Your task to perform on an android device: uninstall "Facebook Messenger" Image 0: 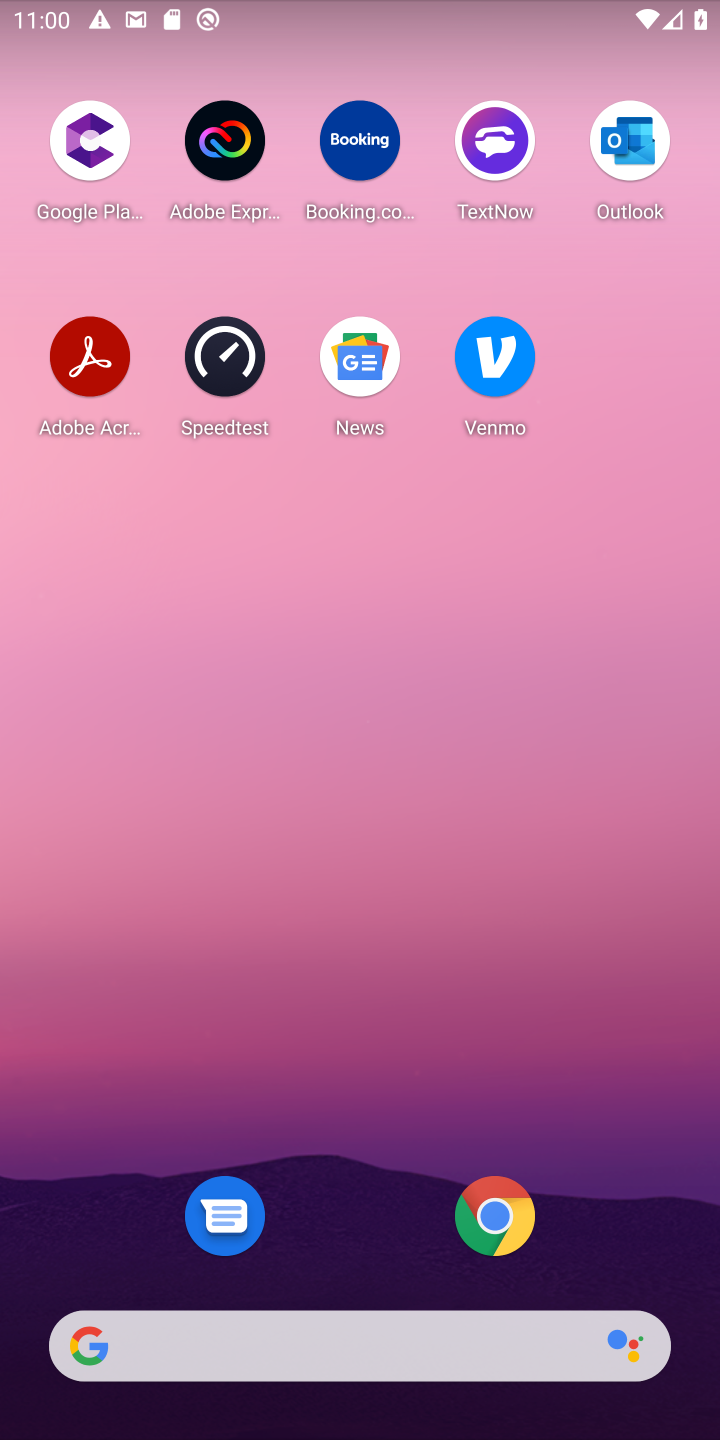
Step 0: press home button
Your task to perform on an android device: uninstall "Facebook Messenger" Image 1: 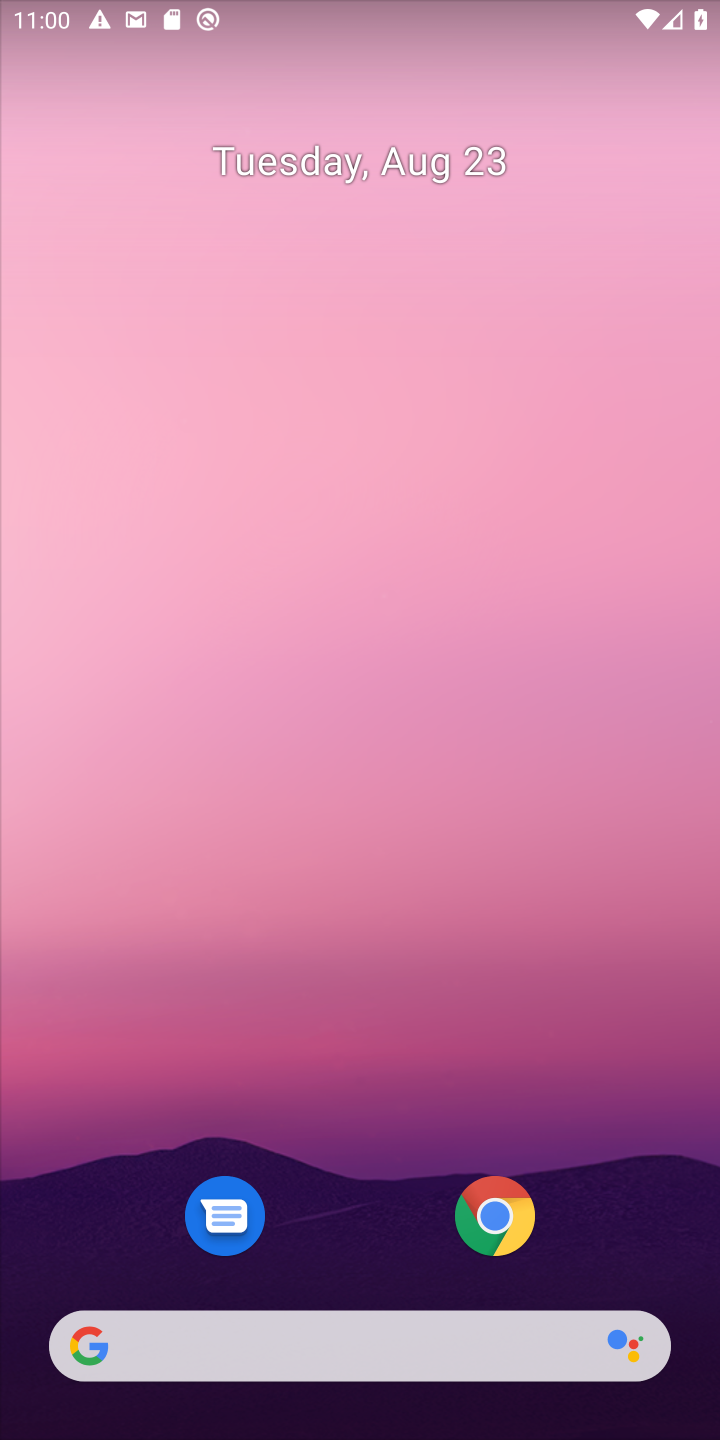
Step 1: drag from (186, 1330) to (346, 39)
Your task to perform on an android device: uninstall "Facebook Messenger" Image 2: 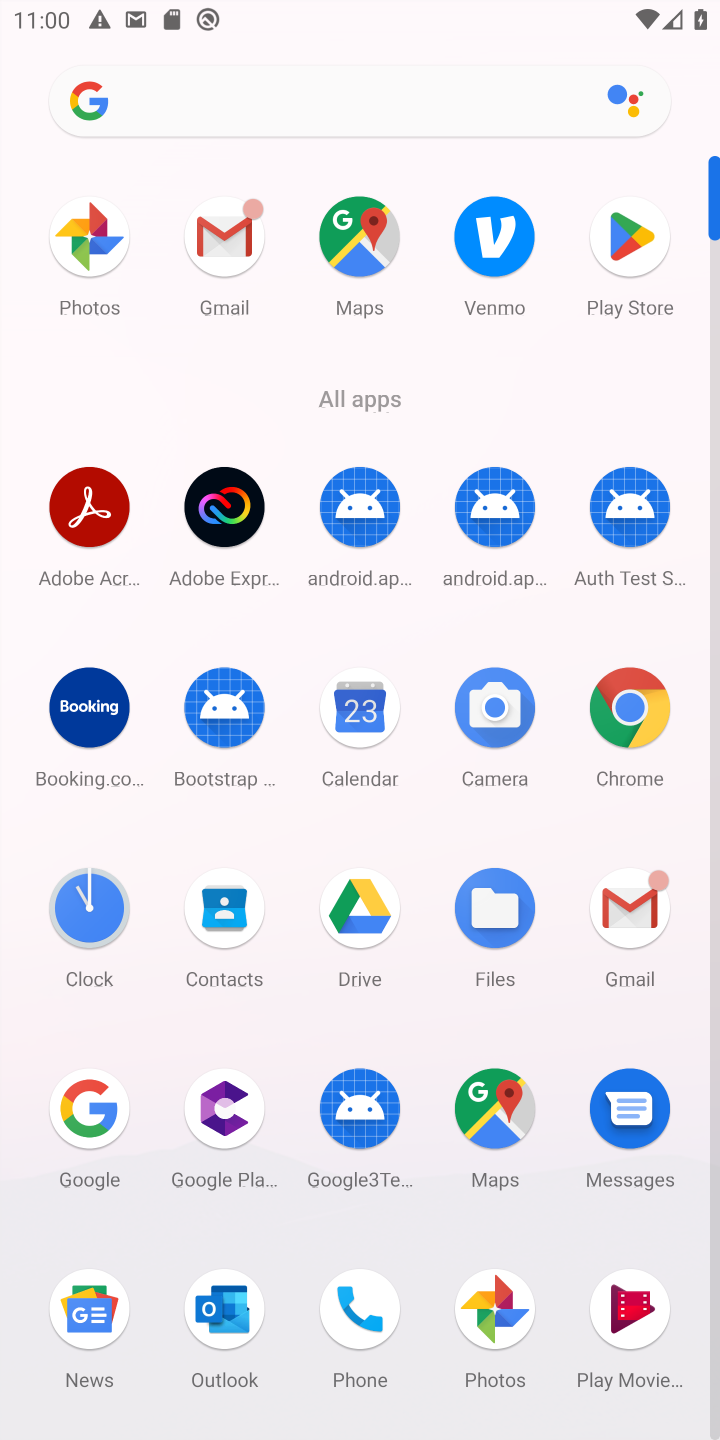
Step 2: click (627, 256)
Your task to perform on an android device: uninstall "Facebook Messenger" Image 3: 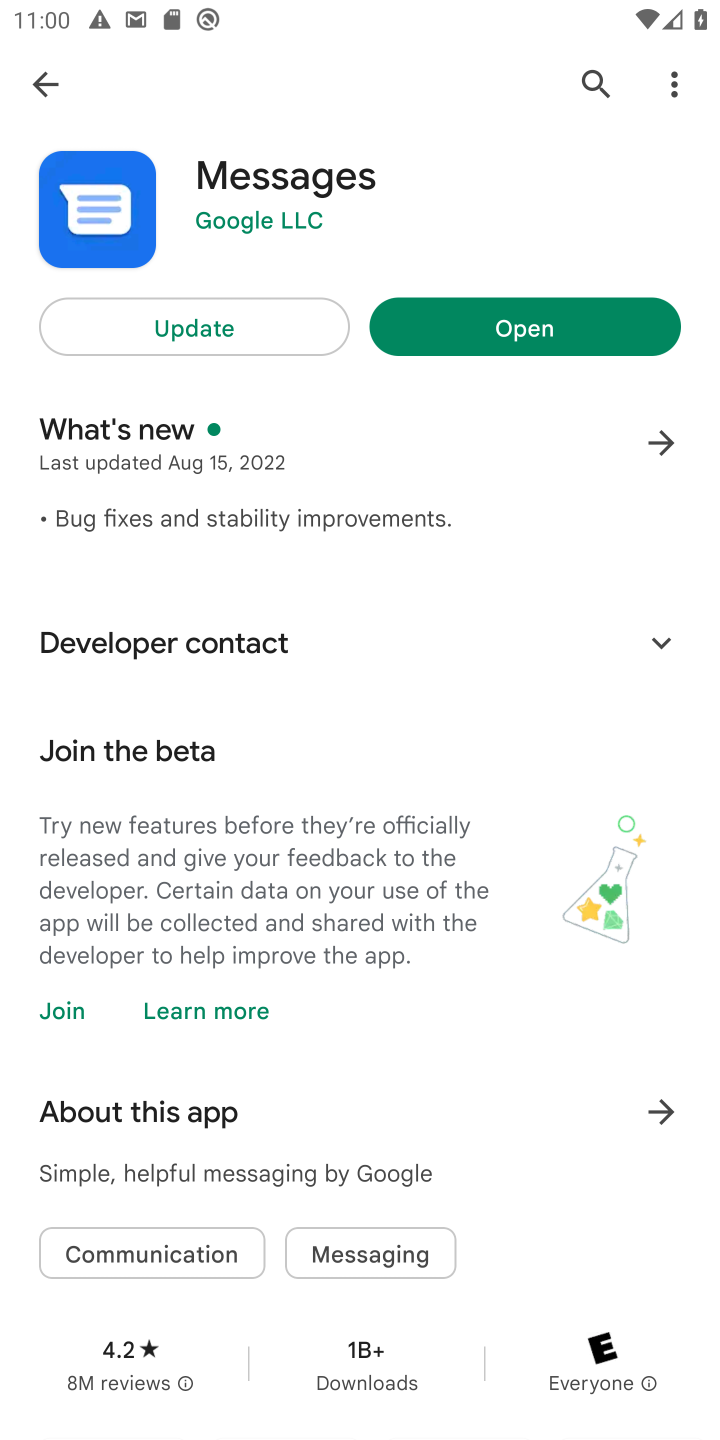
Step 3: press back button
Your task to perform on an android device: uninstall "Facebook Messenger" Image 4: 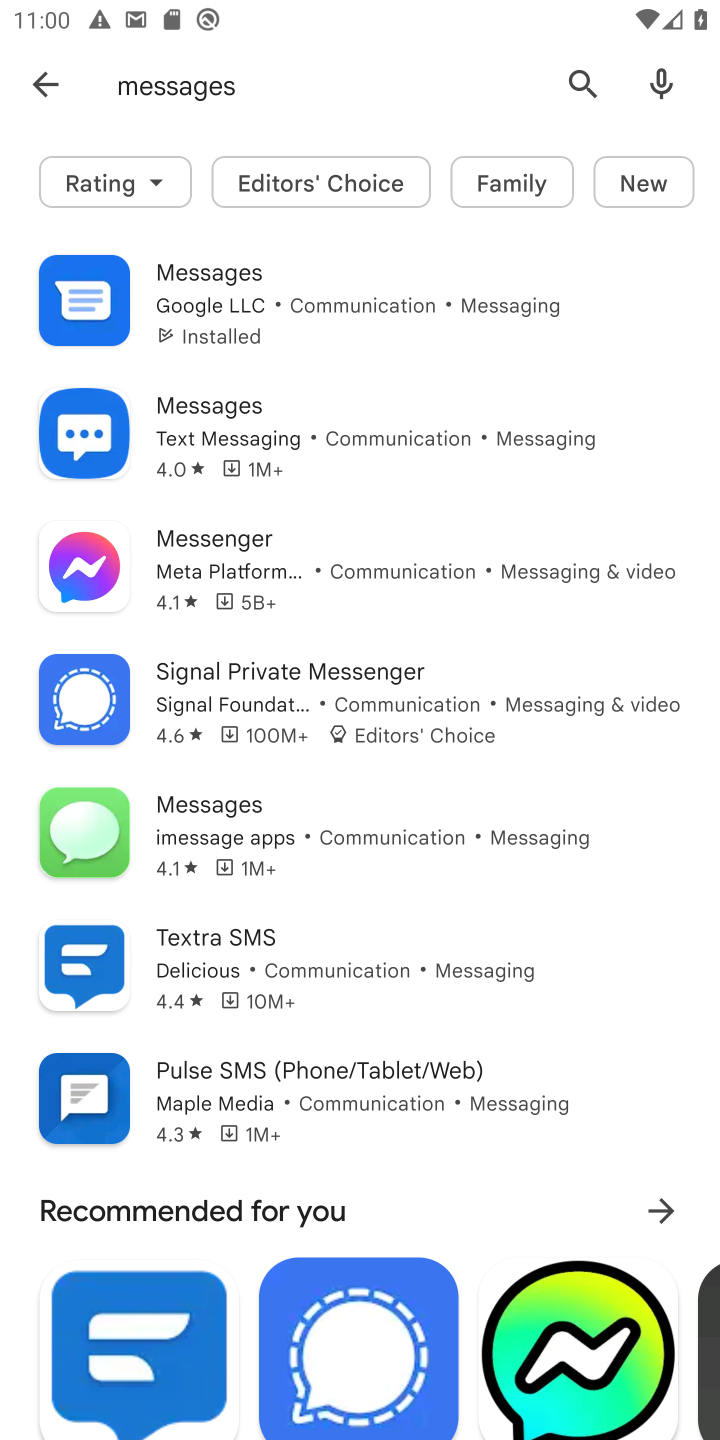
Step 4: press back button
Your task to perform on an android device: uninstall "Facebook Messenger" Image 5: 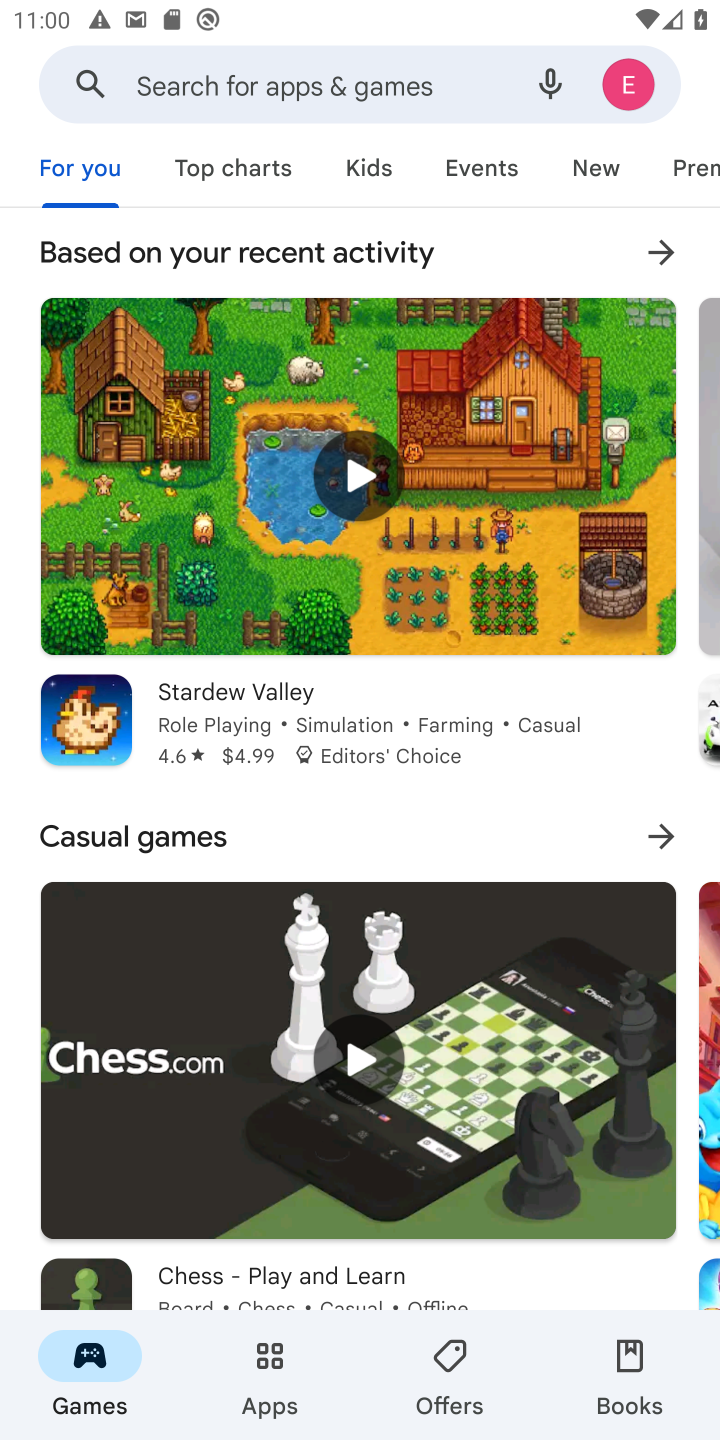
Step 5: click (246, 75)
Your task to perform on an android device: uninstall "Facebook Messenger" Image 6: 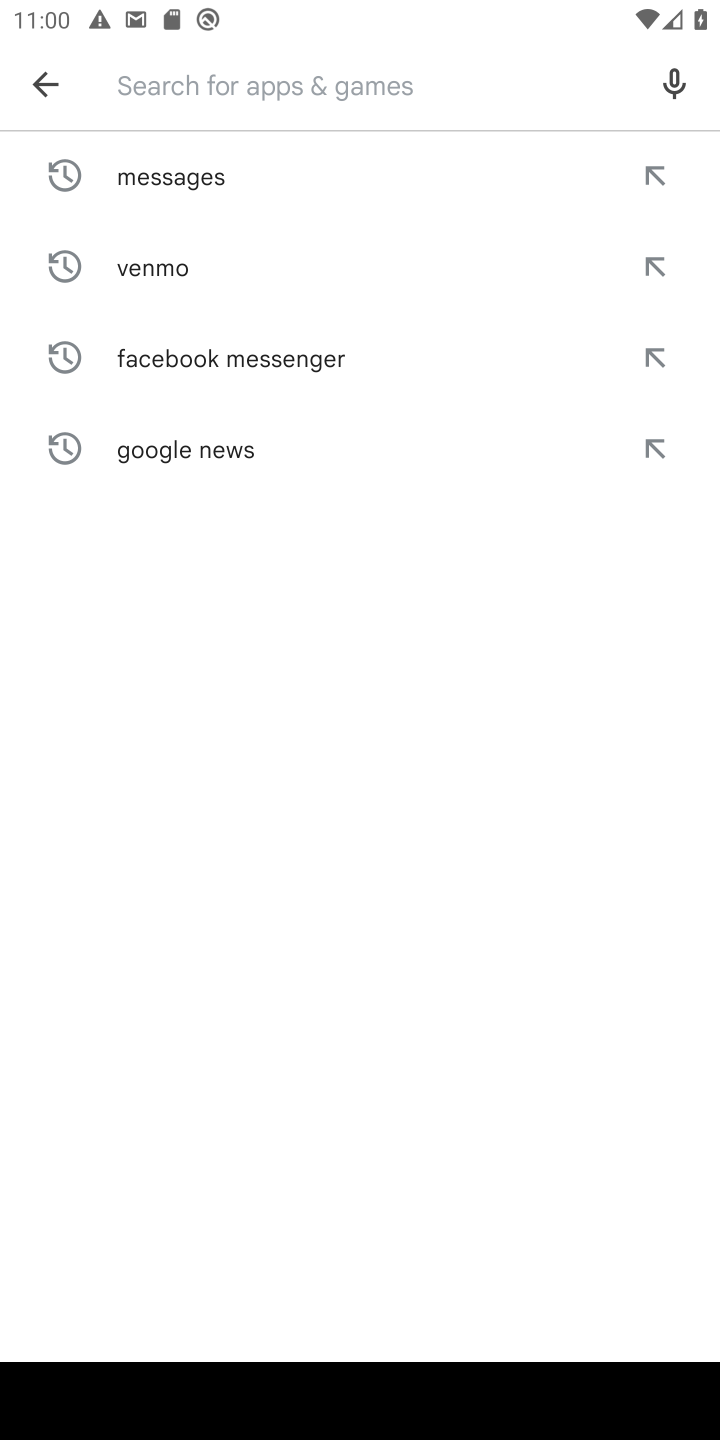
Step 6: type "Facebook Messenger"
Your task to perform on an android device: uninstall "Facebook Messenger" Image 7: 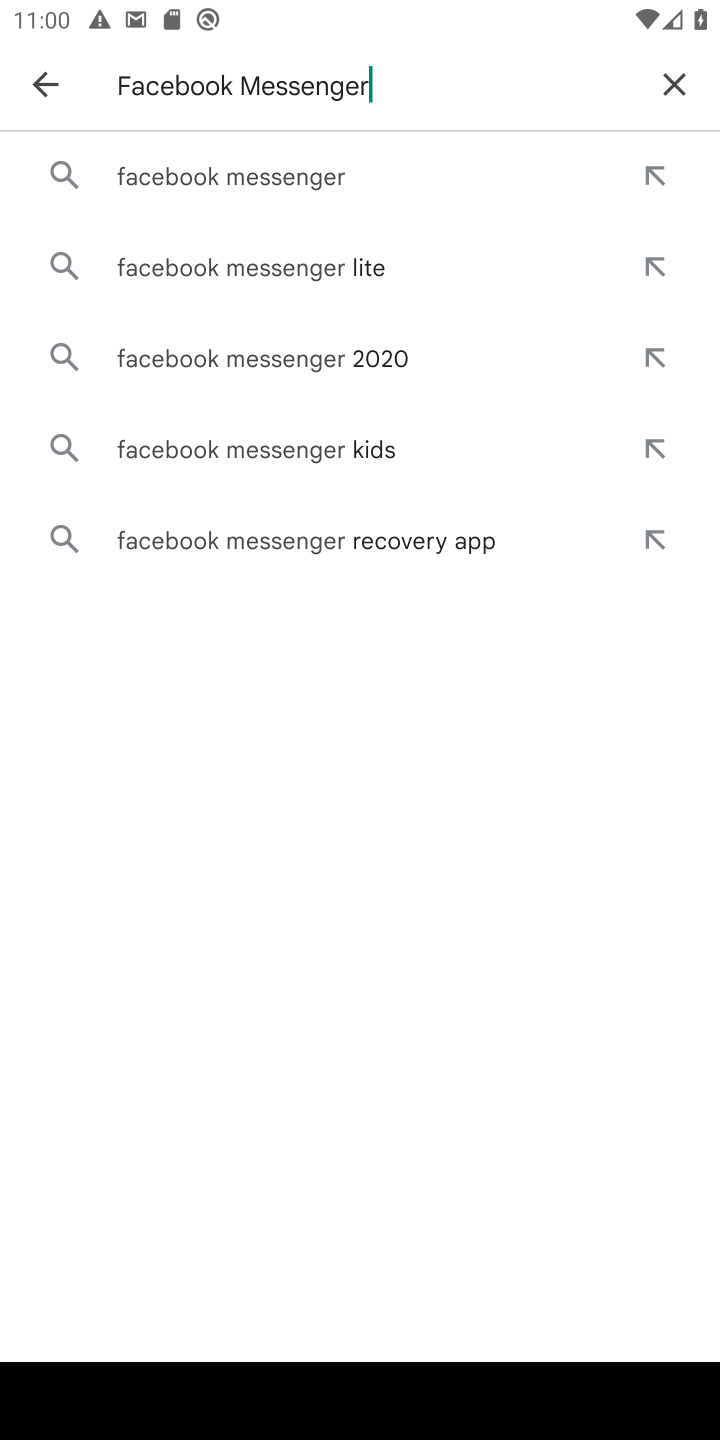
Step 7: click (332, 172)
Your task to perform on an android device: uninstall "Facebook Messenger" Image 8: 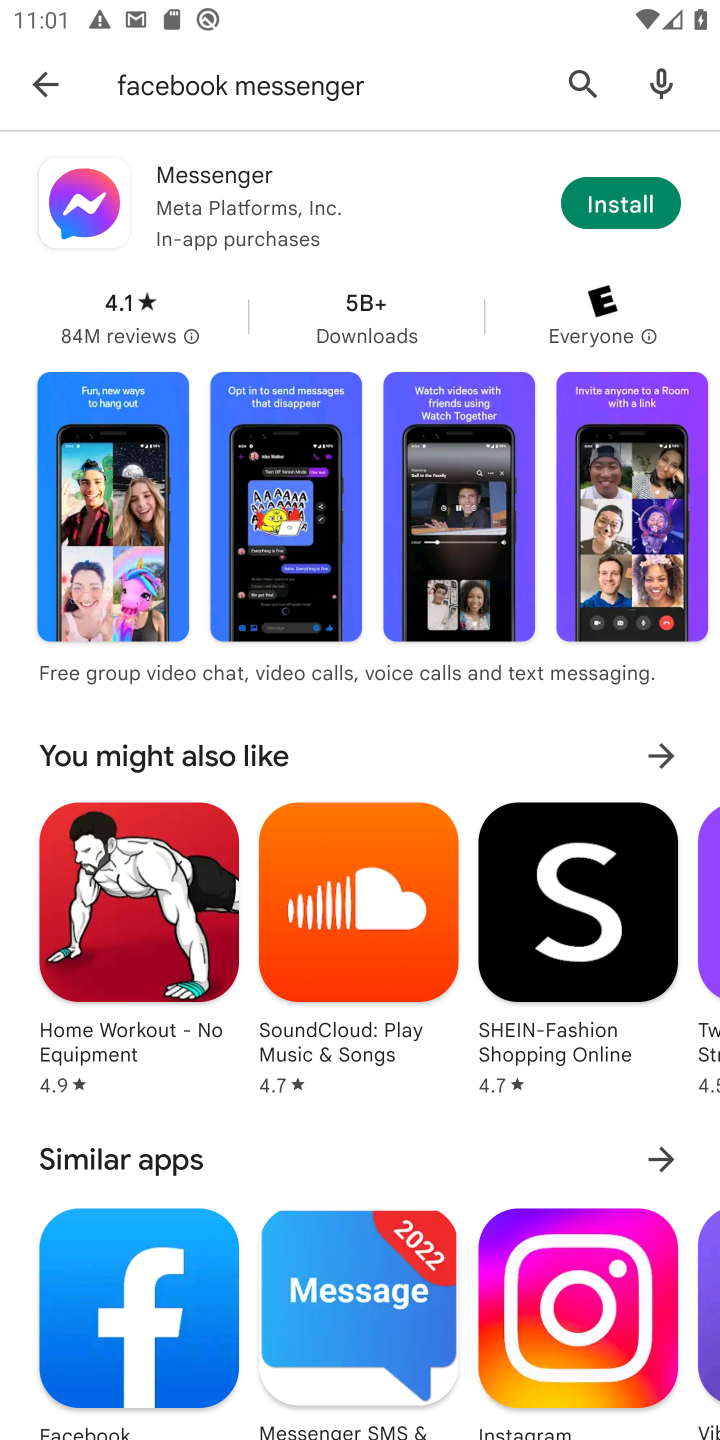
Step 8: task complete